Your task to perform on an android device: turn off location history Image 0: 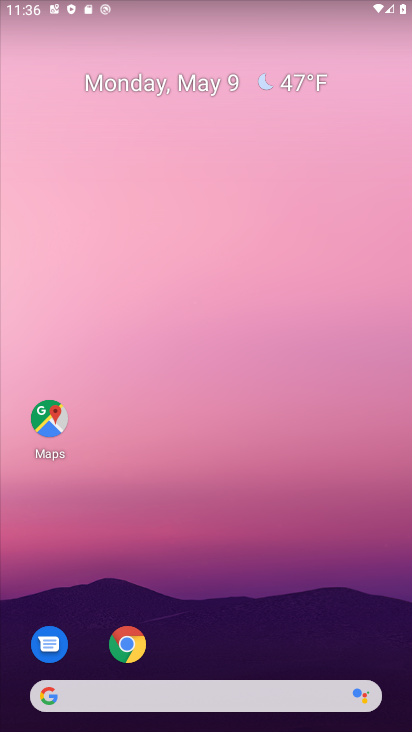
Step 0: drag from (46, 563) to (255, 199)
Your task to perform on an android device: turn off location history Image 1: 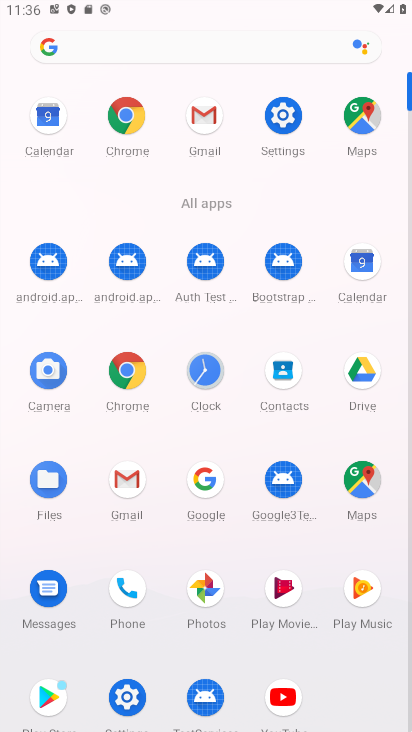
Step 1: click (280, 124)
Your task to perform on an android device: turn off location history Image 2: 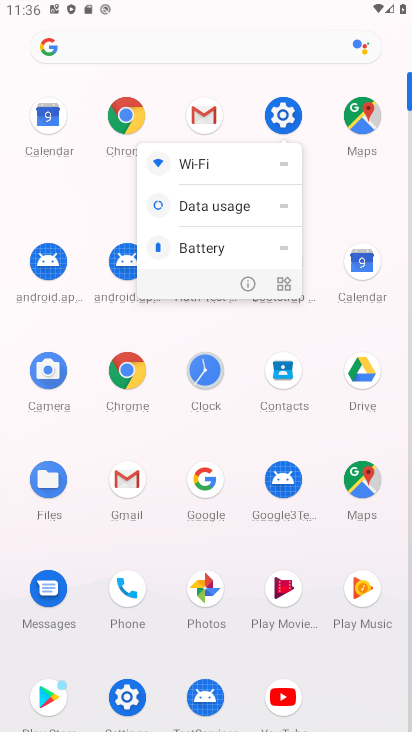
Step 2: click (276, 121)
Your task to perform on an android device: turn off location history Image 3: 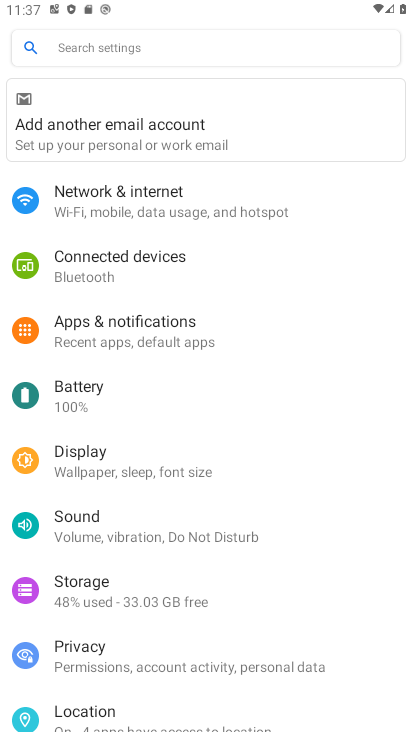
Step 3: click (58, 707)
Your task to perform on an android device: turn off location history Image 4: 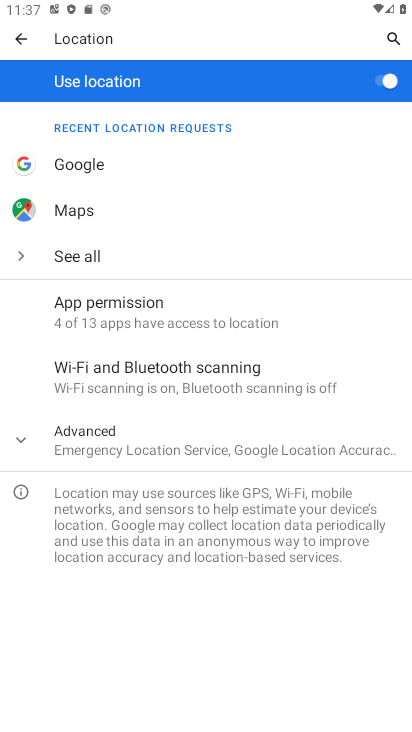
Step 4: click (392, 82)
Your task to perform on an android device: turn off location history Image 5: 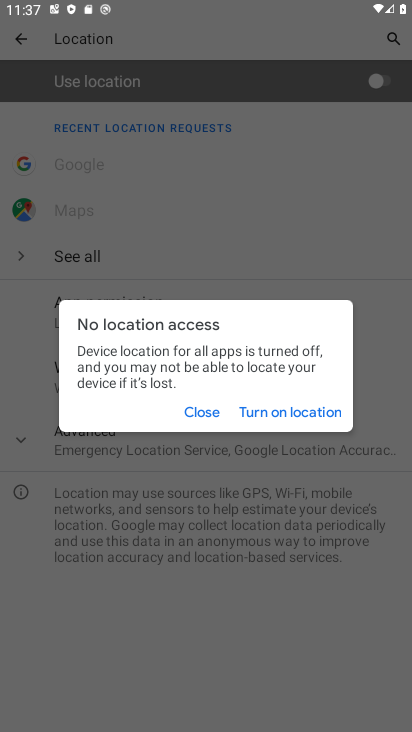
Step 5: click (188, 411)
Your task to perform on an android device: turn off location history Image 6: 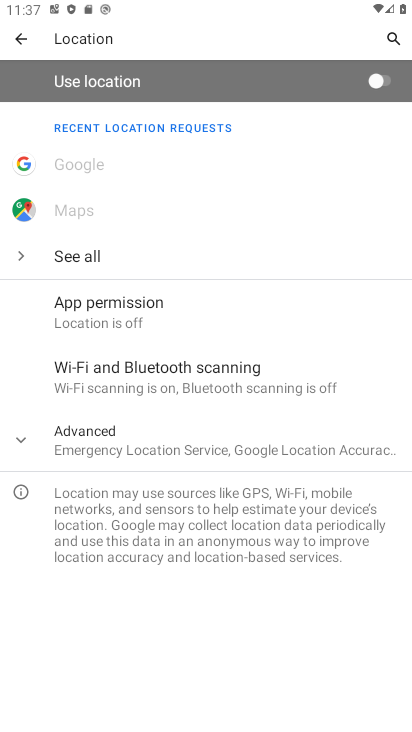
Step 6: task complete